Your task to perform on an android device: Go to Yahoo.com Image 0: 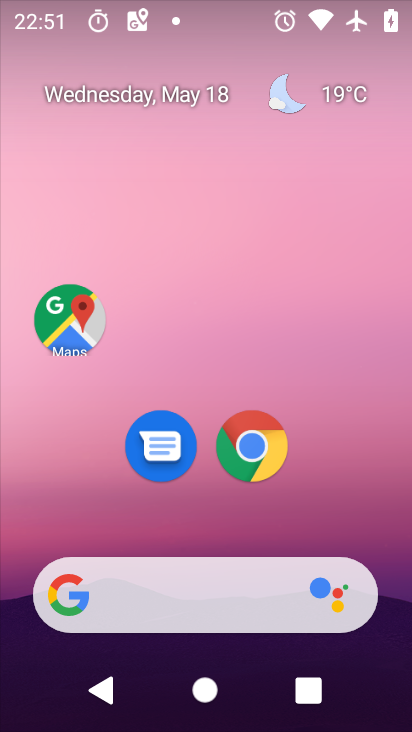
Step 0: press home button
Your task to perform on an android device: Go to Yahoo.com Image 1: 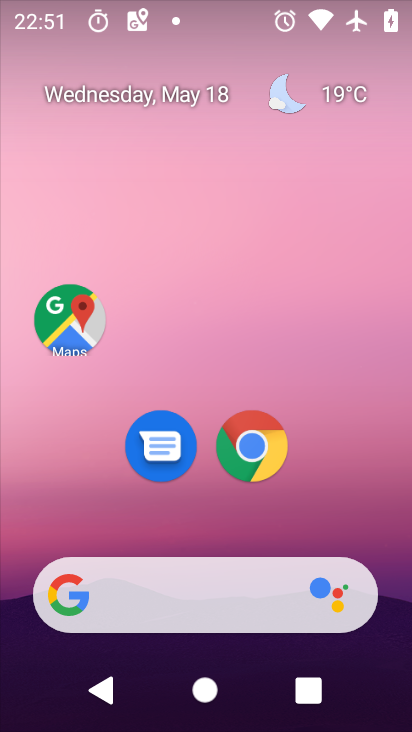
Step 1: click (249, 462)
Your task to perform on an android device: Go to Yahoo.com Image 2: 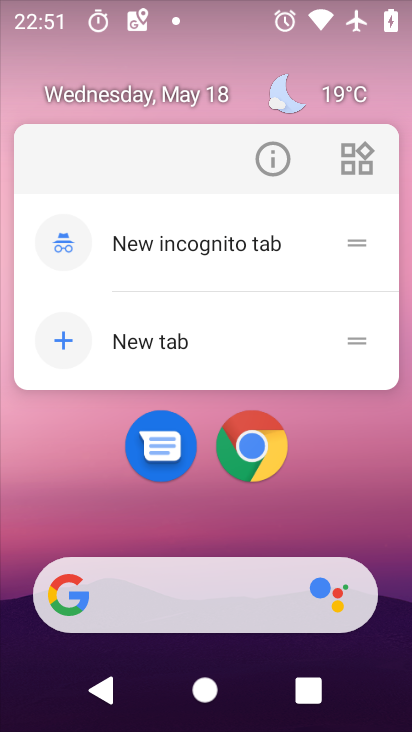
Step 2: click (263, 464)
Your task to perform on an android device: Go to Yahoo.com Image 3: 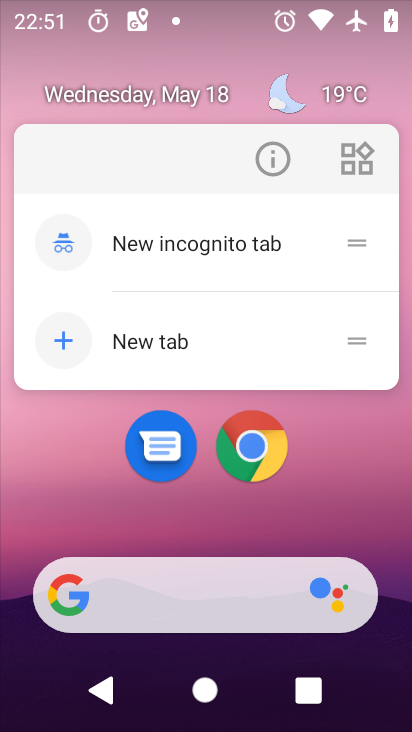
Step 3: click (262, 444)
Your task to perform on an android device: Go to Yahoo.com Image 4: 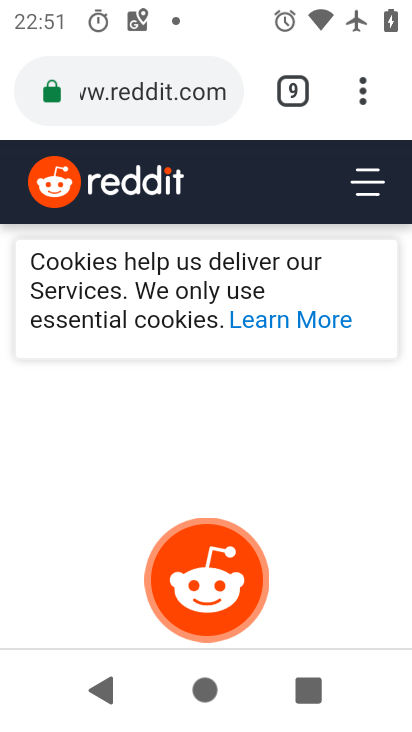
Step 4: drag from (357, 100) to (182, 189)
Your task to perform on an android device: Go to Yahoo.com Image 5: 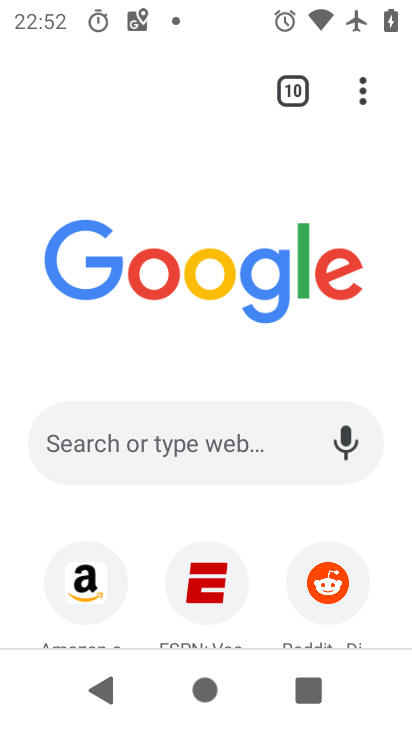
Step 5: drag from (158, 537) to (326, 152)
Your task to perform on an android device: Go to Yahoo.com Image 6: 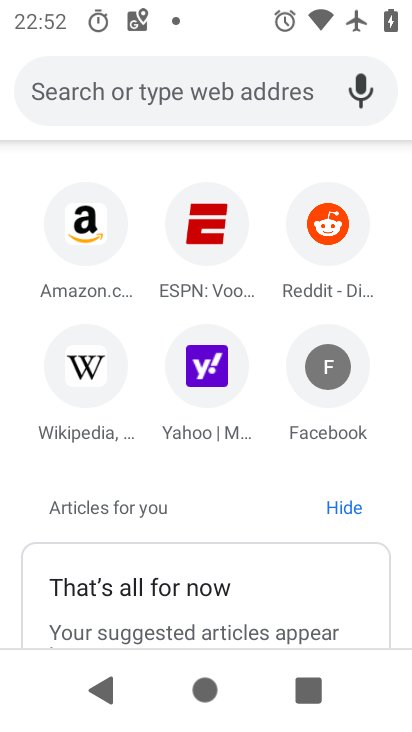
Step 6: click (200, 345)
Your task to perform on an android device: Go to Yahoo.com Image 7: 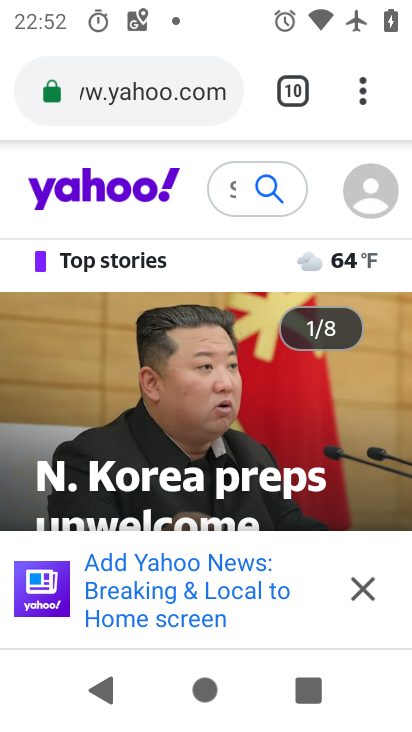
Step 7: task complete